Your task to perform on an android device: clear history in the chrome app Image 0: 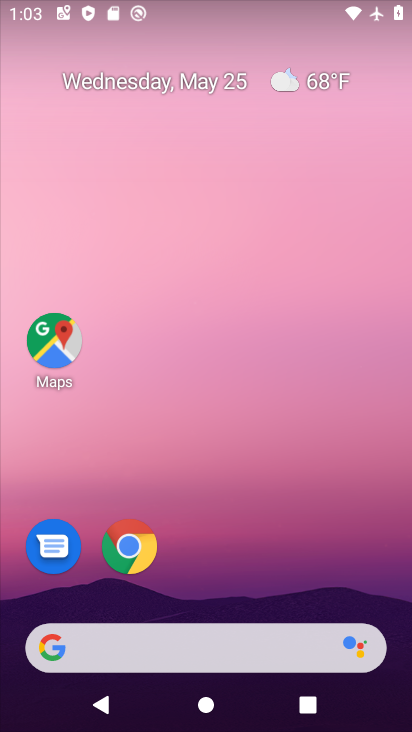
Step 0: drag from (372, 571) to (257, 95)
Your task to perform on an android device: clear history in the chrome app Image 1: 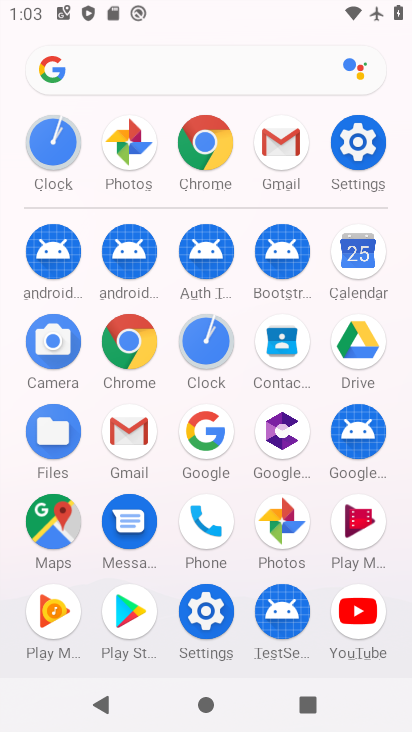
Step 1: click (196, 144)
Your task to perform on an android device: clear history in the chrome app Image 2: 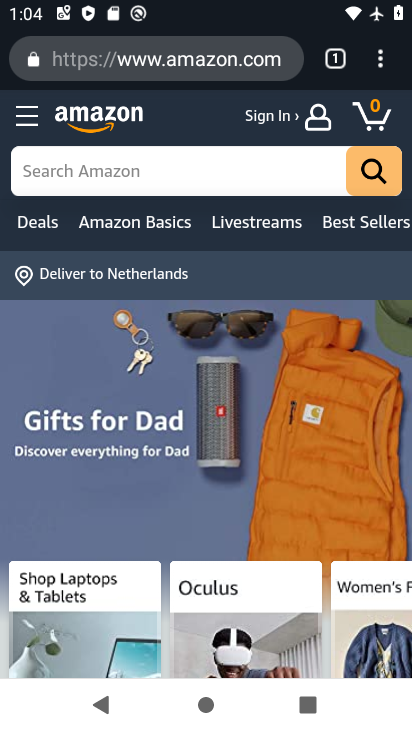
Step 2: click (379, 69)
Your task to perform on an android device: clear history in the chrome app Image 3: 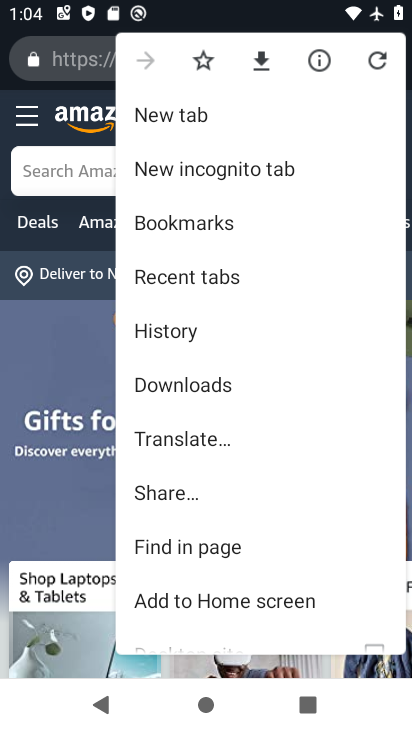
Step 3: click (193, 337)
Your task to perform on an android device: clear history in the chrome app Image 4: 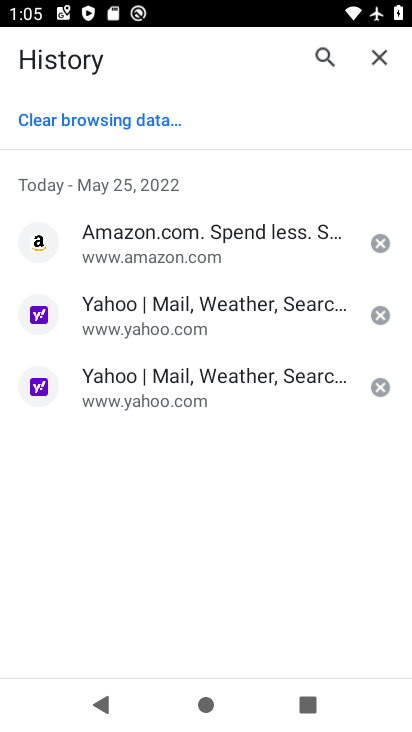
Step 4: task complete